Your task to perform on an android device: Show me recent news Image 0: 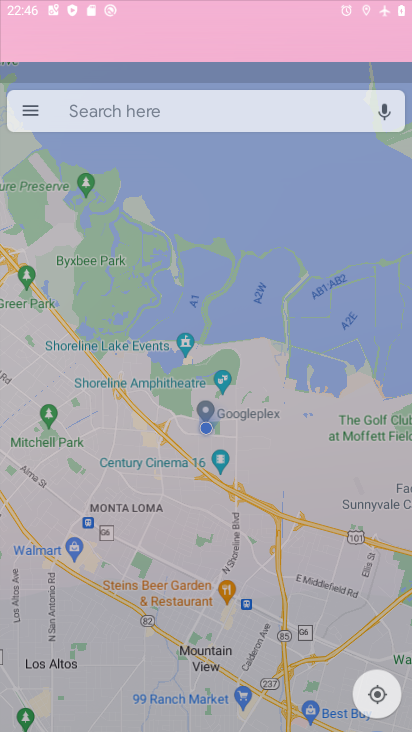
Step 0: drag from (226, 653) to (205, 61)
Your task to perform on an android device: Show me recent news Image 1: 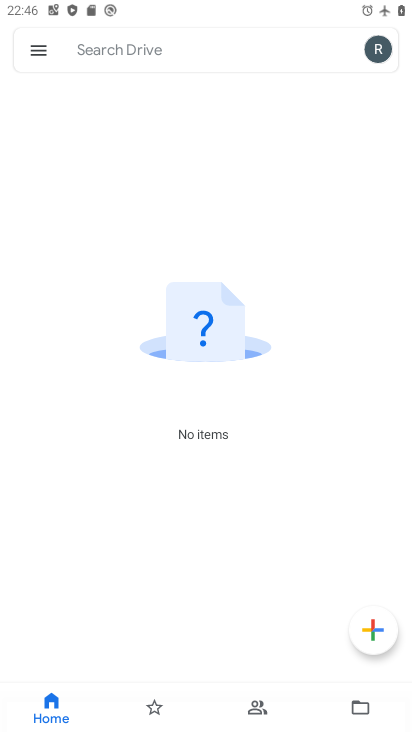
Step 1: task complete